Your task to perform on an android device: star an email in the gmail app Image 0: 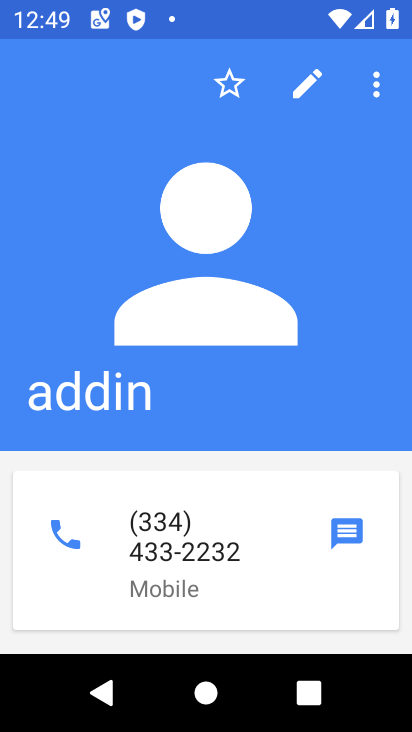
Step 0: press home button
Your task to perform on an android device: star an email in the gmail app Image 1: 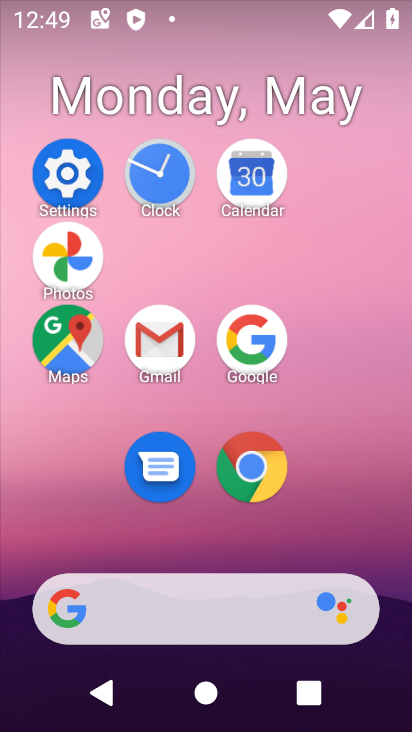
Step 1: click (178, 355)
Your task to perform on an android device: star an email in the gmail app Image 2: 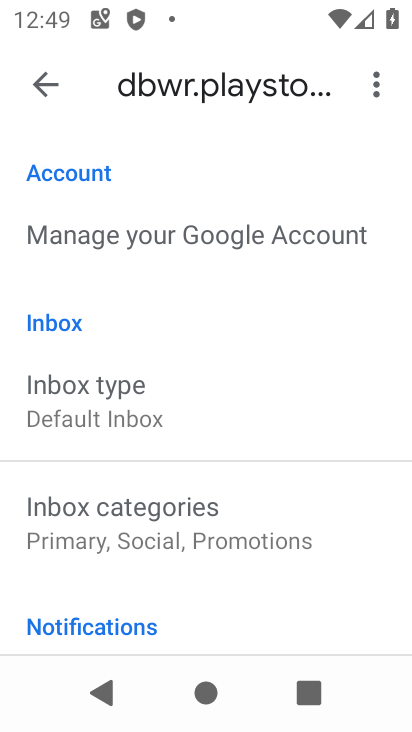
Step 2: click (34, 113)
Your task to perform on an android device: star an email in the gmail app Image 3: 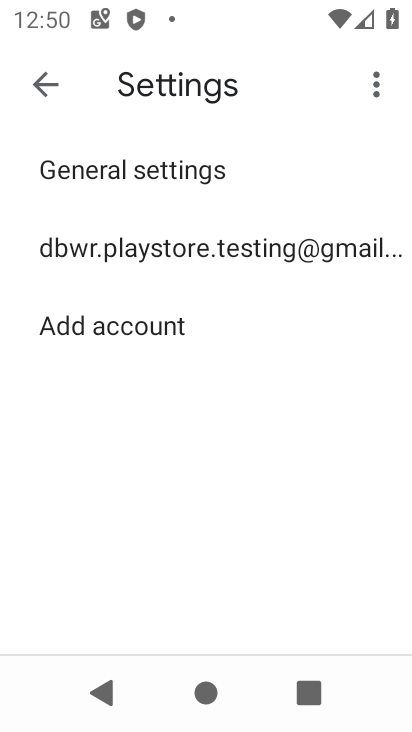
Step 3: click (37, 99)
Your task to perform on an android device: star an email in the gmail app Image 4: 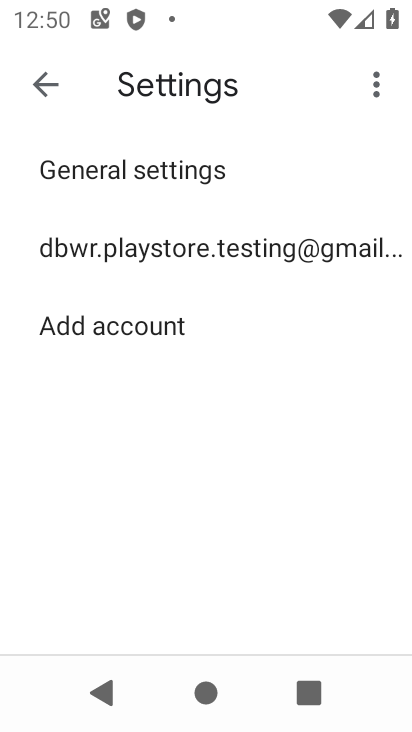
Step 4: click (44, 82)
Your task to perform on an android device: star an email in the gmail app Image 5: 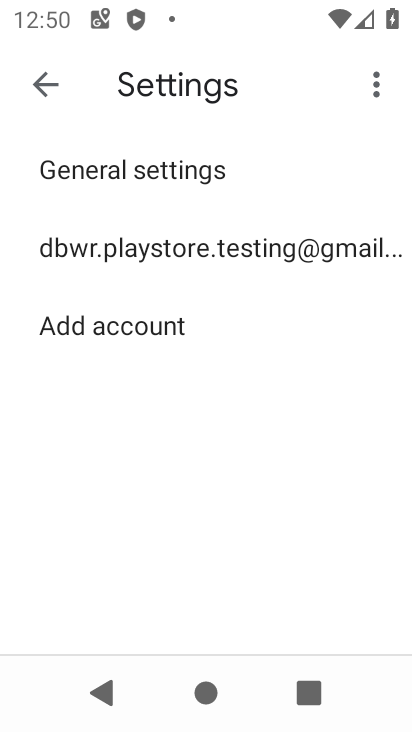
Step 5: click (69, 94)
Your task to perform on an android device: star an email in the gmail app Image 6: 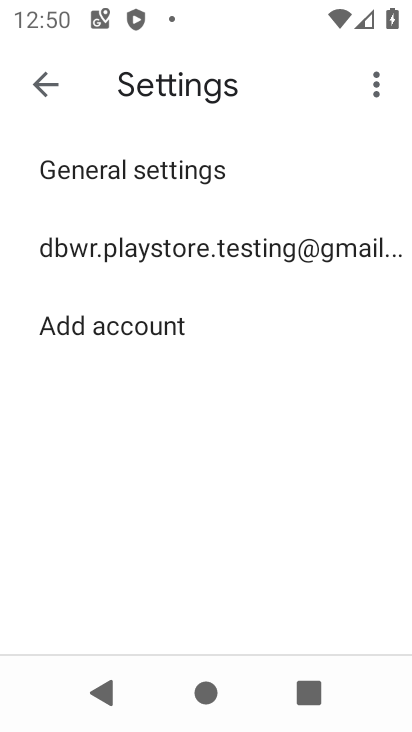
Step 6: click (63, 88)
Your task to perform on an android device: star an email in the gmail app Image 7: 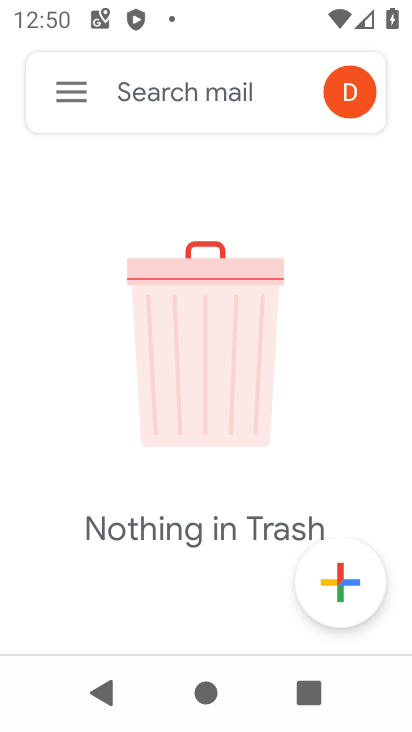
Step 7: press back button
Your task to perform on an android device: star an email in the gmail app Image 8: 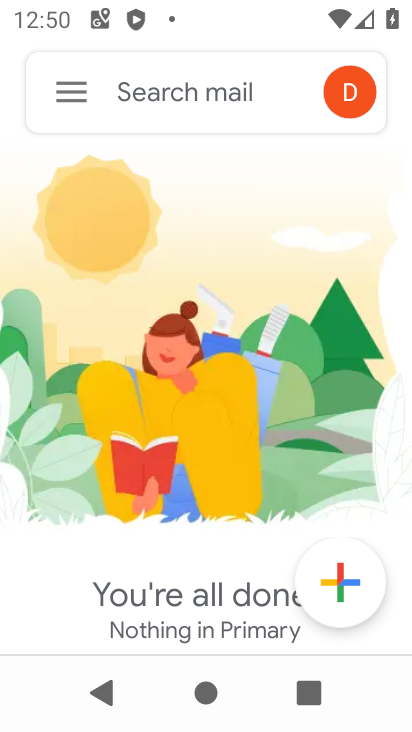
Step 8: click (67, 92)
Your task to perform on an android device: star an email in the gmail app Image 9: 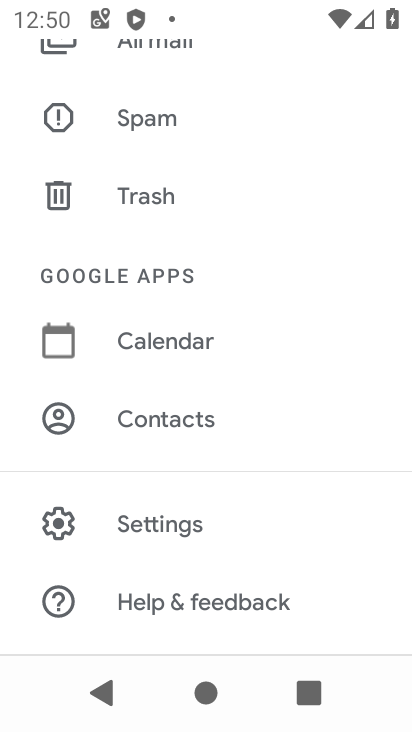
Step 9: click (207, 41)
Your task to perform on an android device: star an email in the gmail app Image 10: 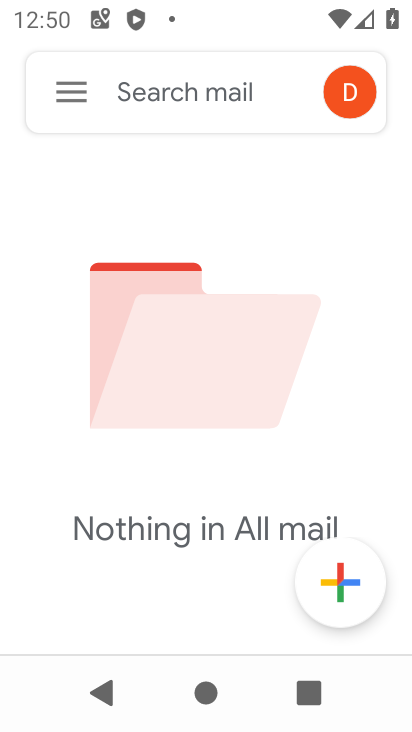
Step 10: task complete